Your task to perform on an android device: change the clock display to analog Image 0: 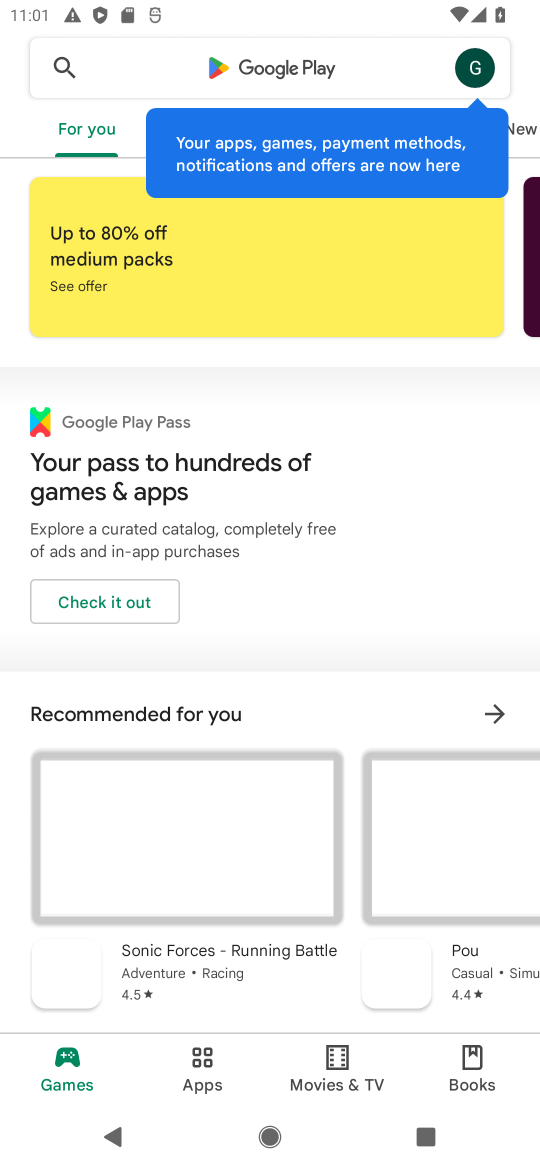
Step 0: press home button
Your task to perform on an android device: change the clock display to analog Image 1: 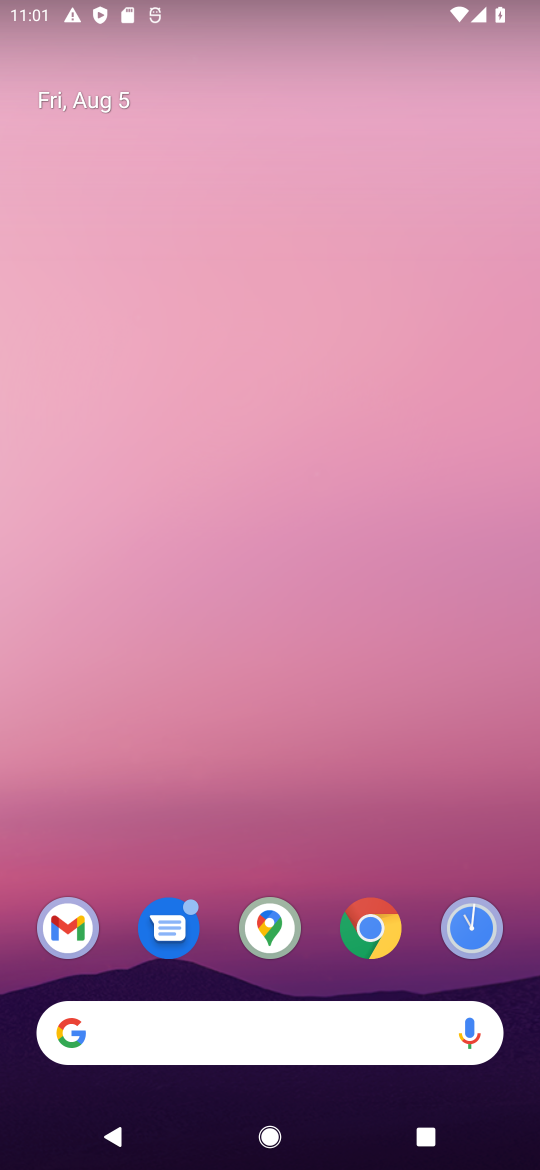
Step 1: drag from (294, 987) to (184, 292)
Your task to perform on an android device: change the clock display to analog Image 2: 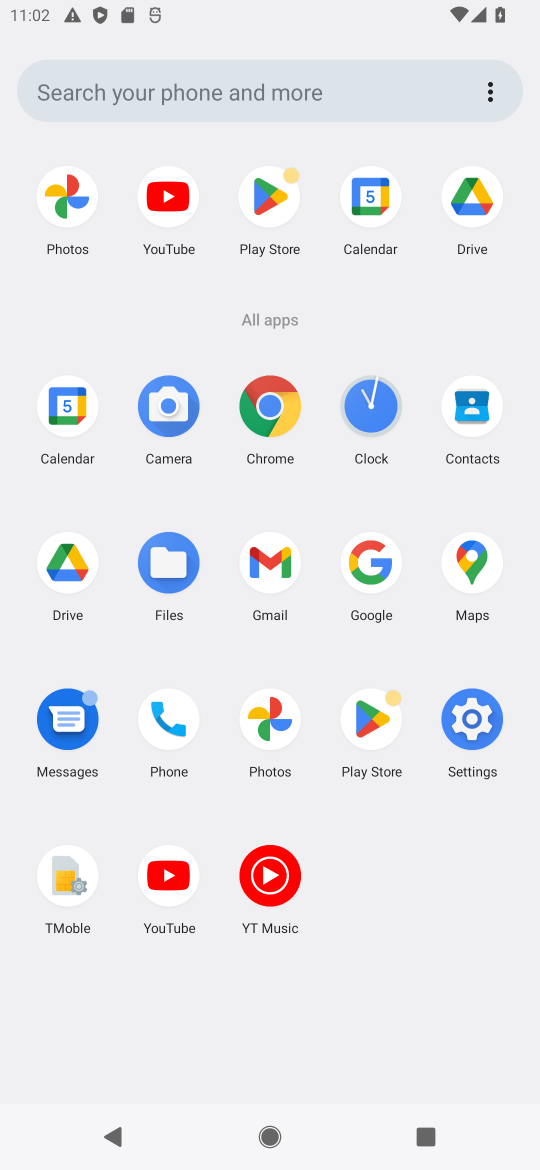
Step 2: click (361, 414)
Your task to perform on an android device: change the clock display to analog Image 3: 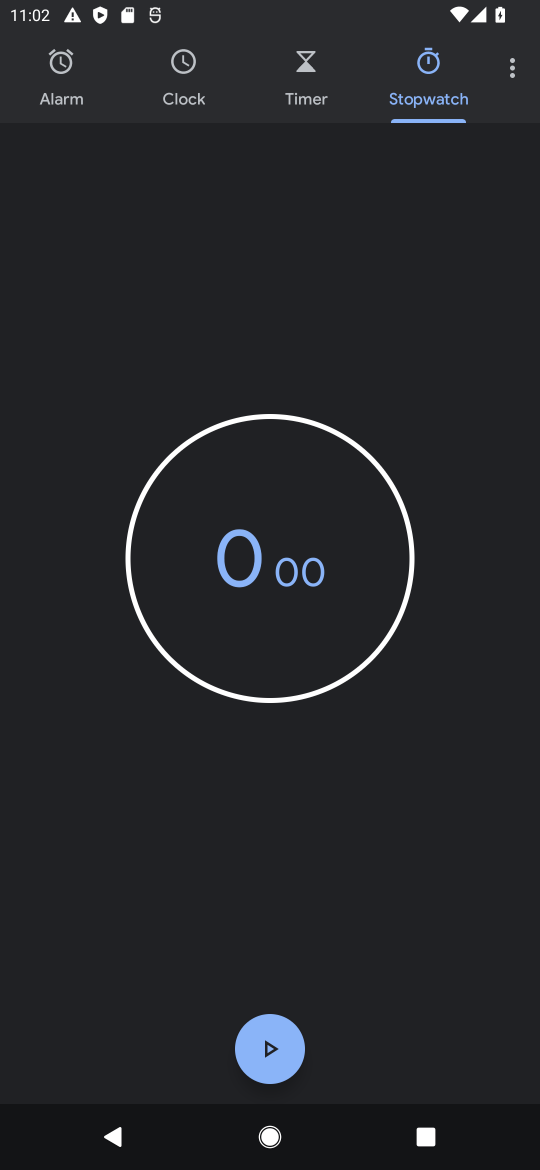
Step 3: click (507, 61)
Your task to perform on an android device: change the clock display to analog Image 4: 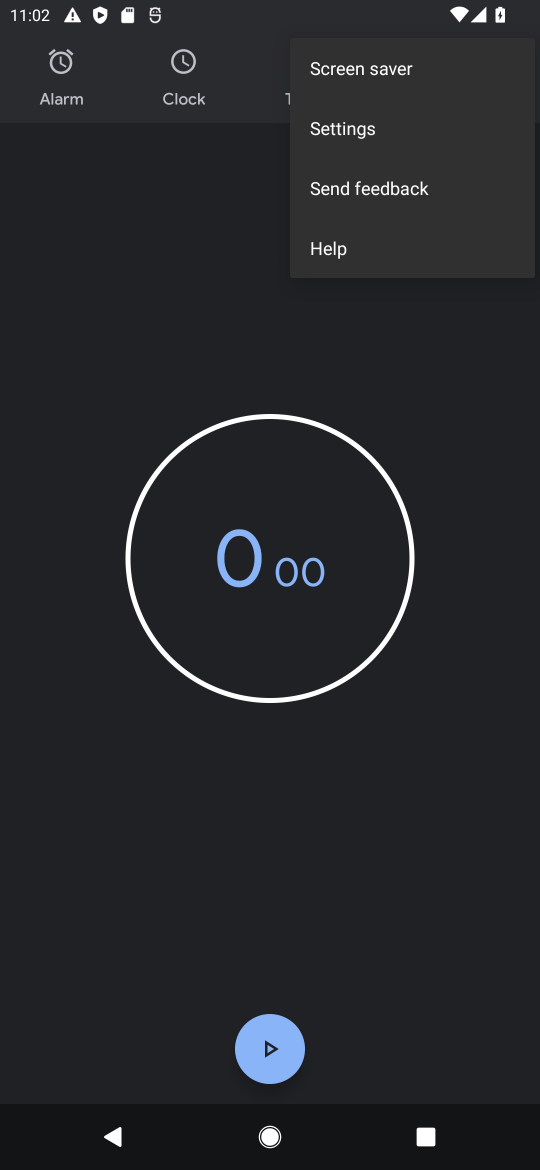
Step 4: click (386, 134)
Your task to perform on an android device: change the clock display to analog Image 5: 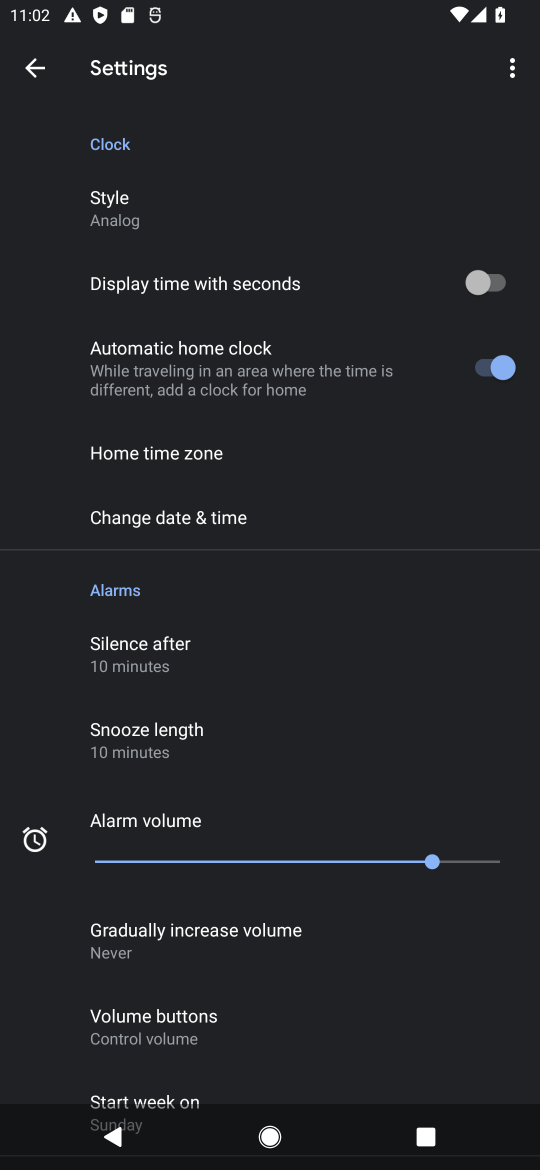
Step 5: click (129, 214)
Your task to perform on an android device: change the clock display to analog Image 6: 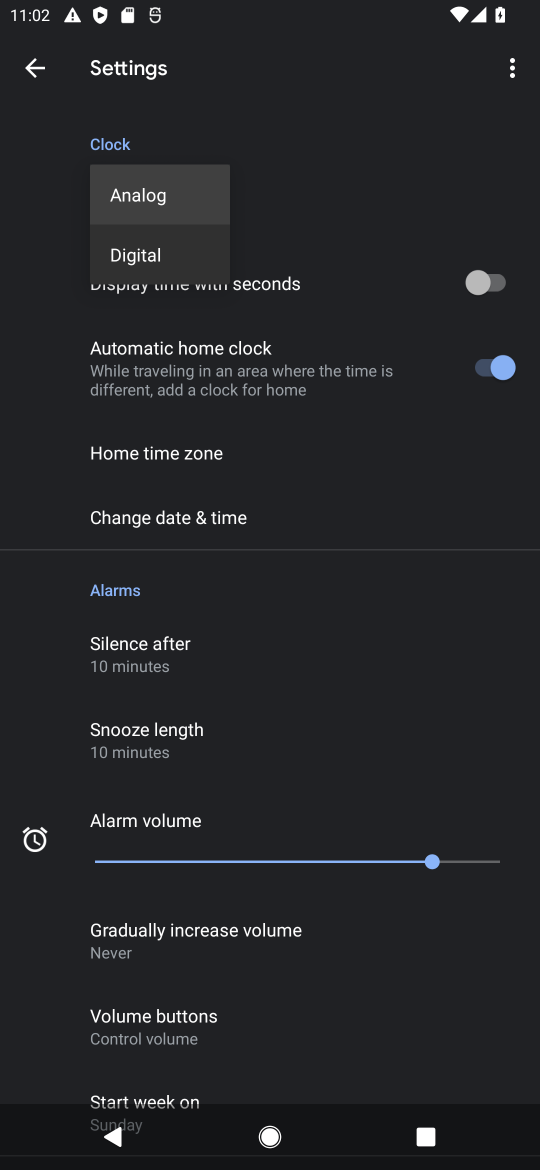
Step 6: click (131, 212)
Your task to perform on an android device: change the clock display to analog Image 7: 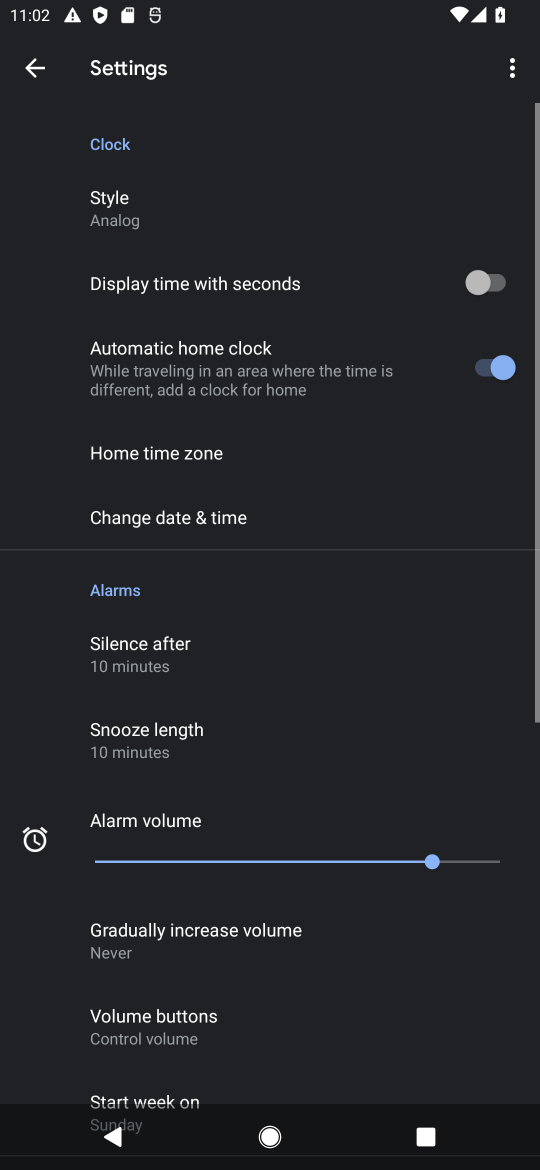
Step 7: task complete